Your task to perform on an android device: turn on notifications settings in the gmail app Image 0: 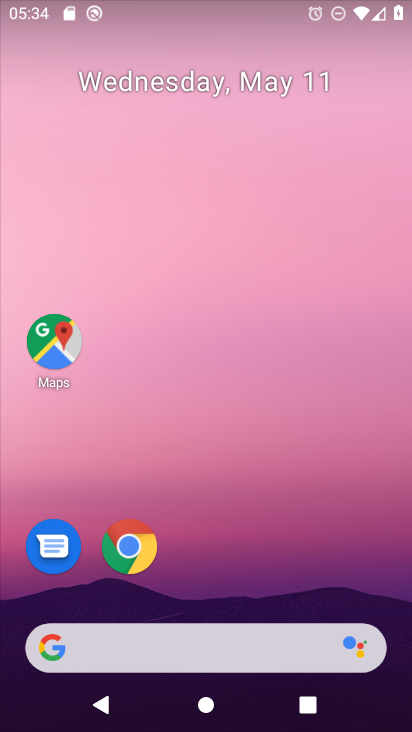
Step 0: drag from (223, 605) to (267, 2)
Your task to perform on an android device: turn on notifications settings in the gmail app Image 1: 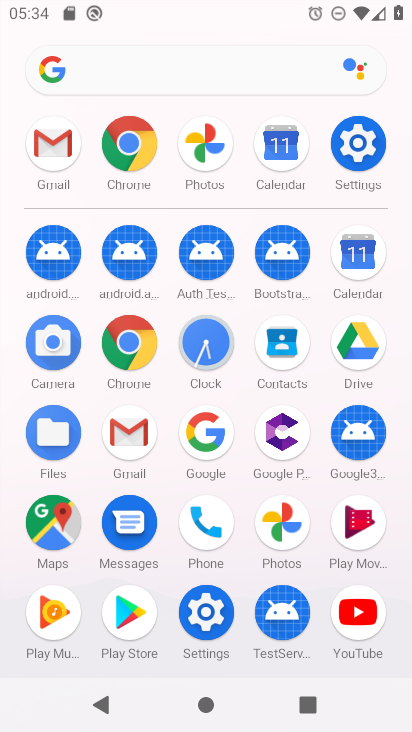
Step 1: click (135, 444)
Your task to perform on an android device: turn on notifications settings in the gmail app Image 2: 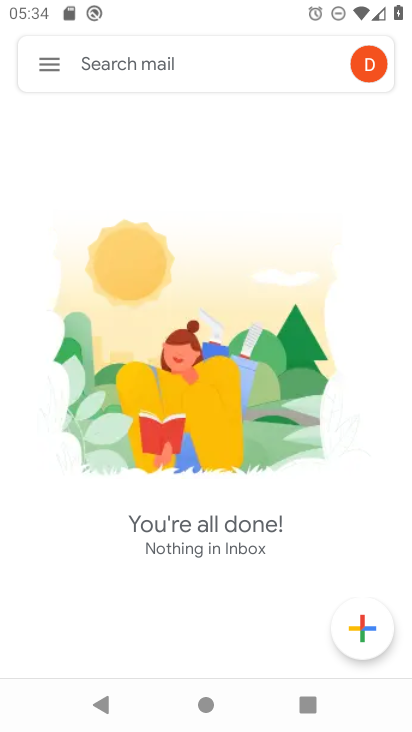
Step 2: click (41, 67)
Your task to perform on an android device: turn on notifications settings in the gmail app Image 3: 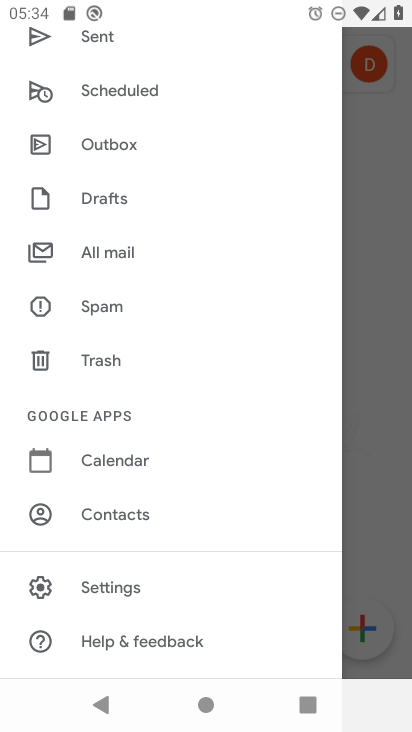
Step 3: click (143, 579)
Your task to perform on an android device: turn on notifications settings in the gmail app Image 4: 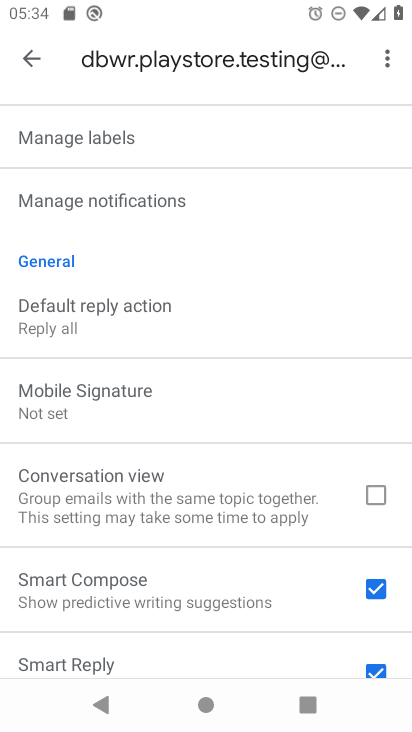
Step 4: drag from (136, 613) to (102, 722)
Your task to perform on an android device: turn on notifications settings in the gmail app Image 5: 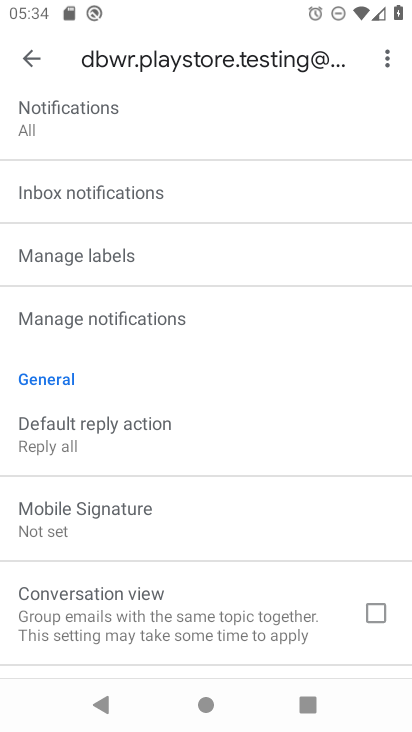
Step 5: click (93, 329)
Your task to perform on an android device: turn on notifications settings in the gmail app Image 6: 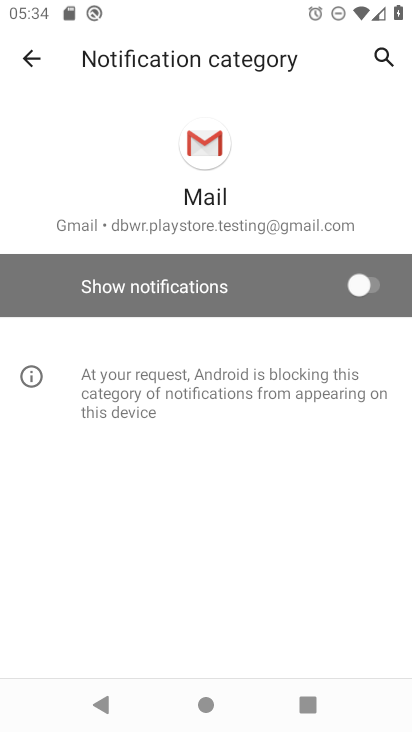
Step 6: click (374, 273)
Your task to perform on an android device: turn on notifications settings in the gmail app Image 7: 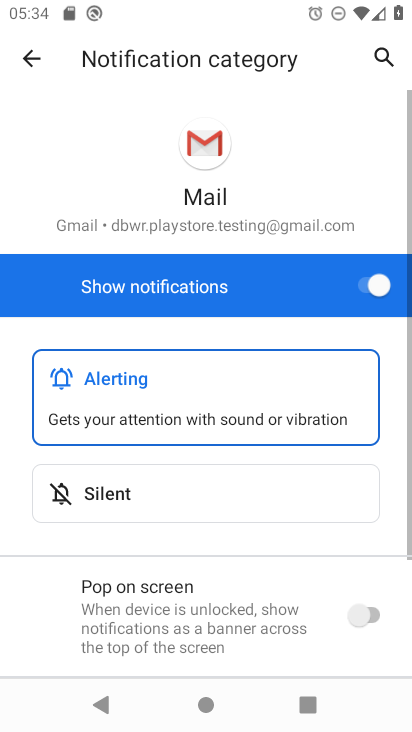
Step 7: task complete